Your task to perform on an android device: Turn off the flashlight Image 0: 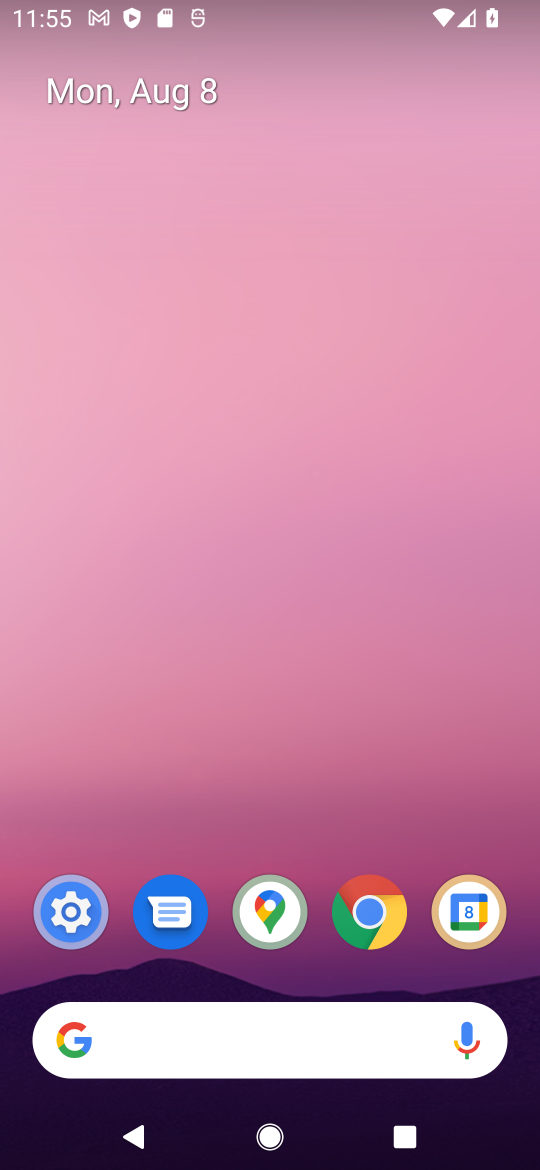
Step 0: click (54, 922)
Your task to perform on an android device: Turn off the flashlight Image 1: 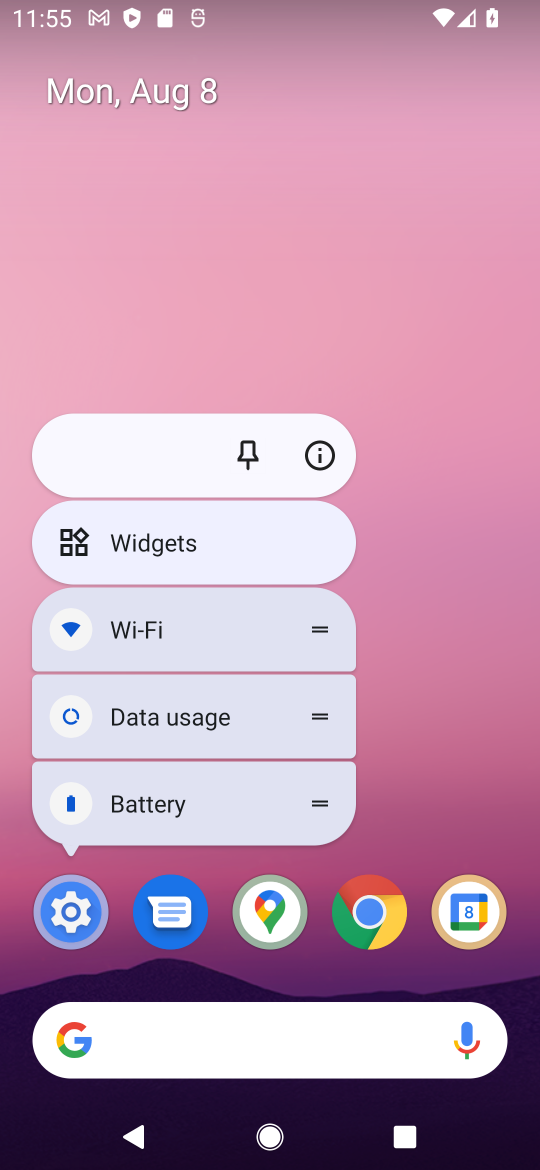
Step 1: click (63, 907)
Your task to perform on an android device: Turn off the flashlight Image 2: 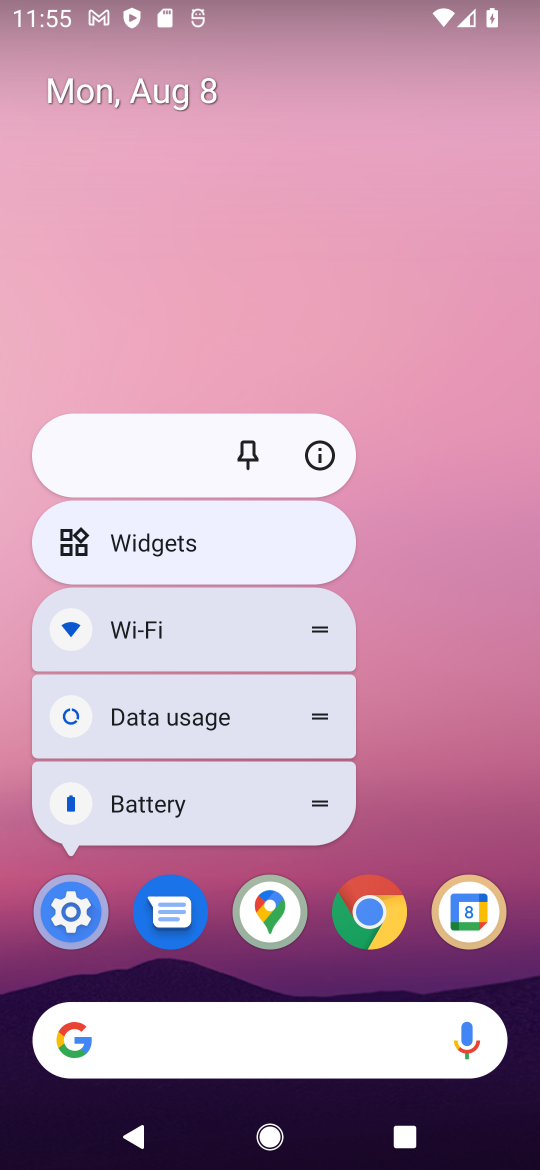
Step 2: click (79, 920)
Your task to perform on an android device: Turn off the flashlight Image 3: 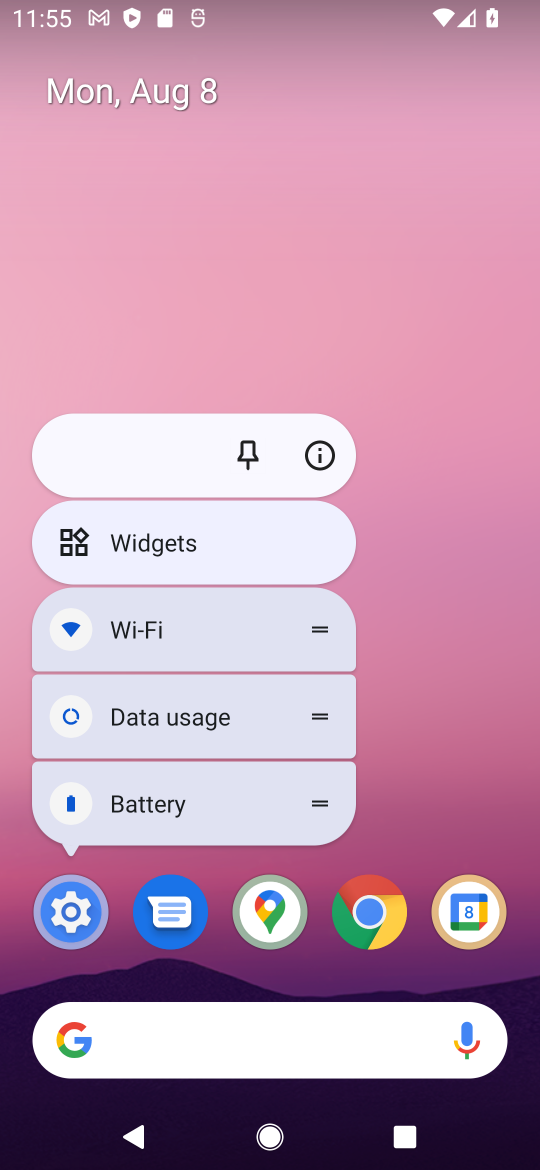
Step 3: click (71, 908)
Your task to perform on an android device: Turn off the flashlight Image 4: 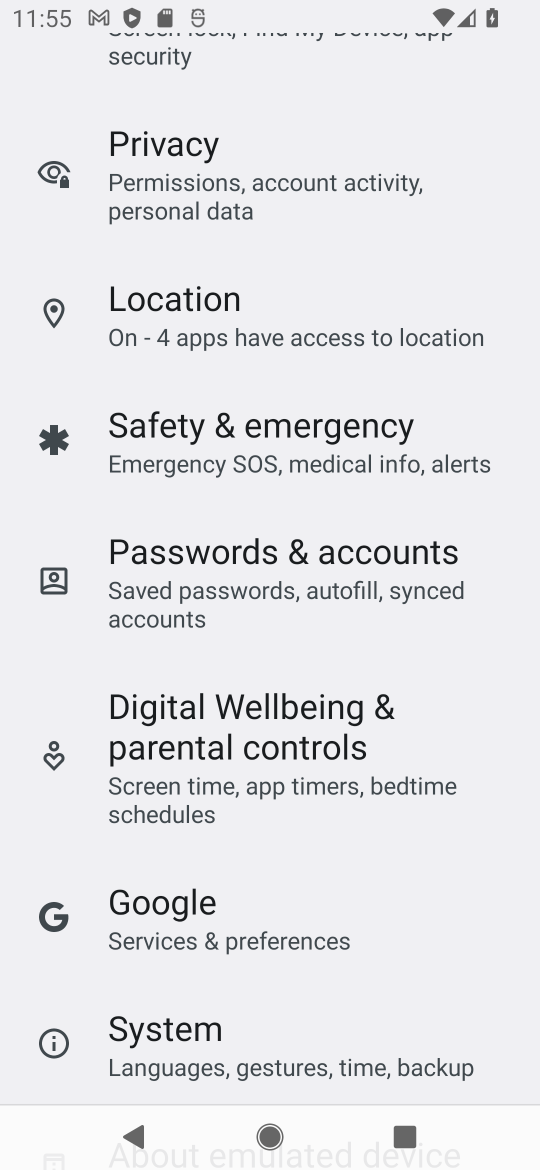
Step 4: drag from (268, 215) to (247, 953)
Your task to perform on an android device: Turn off the flashlight Image 5: 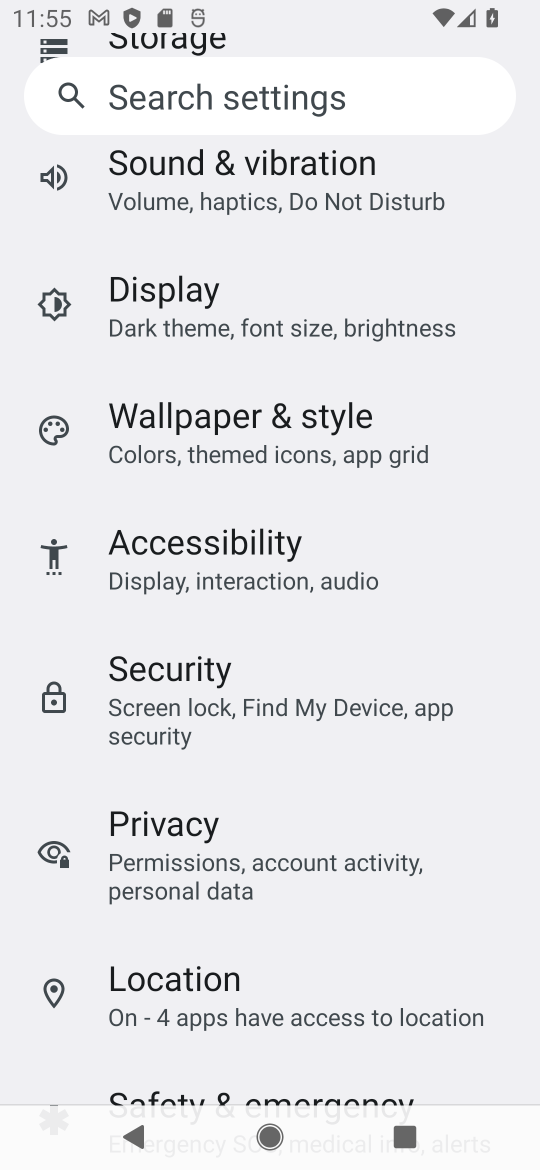
Step 5: click (207, 99)
Your task to perform on an android device: Turn off the flashlight Image 6: 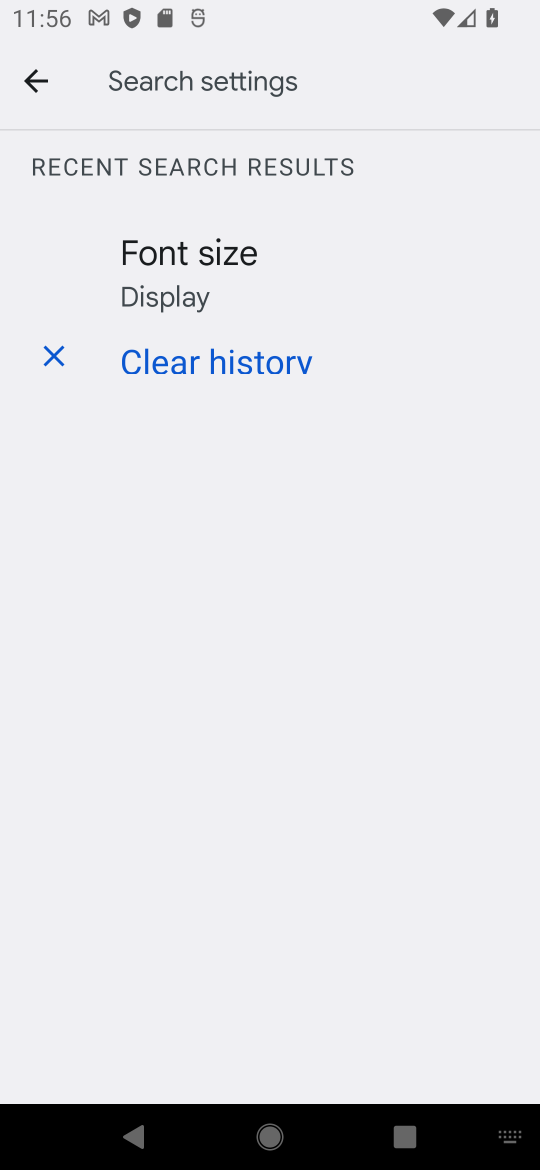
Step 6: click (215, 77)
Your task to perform on an android device: Turn off the flashlight Image 7: 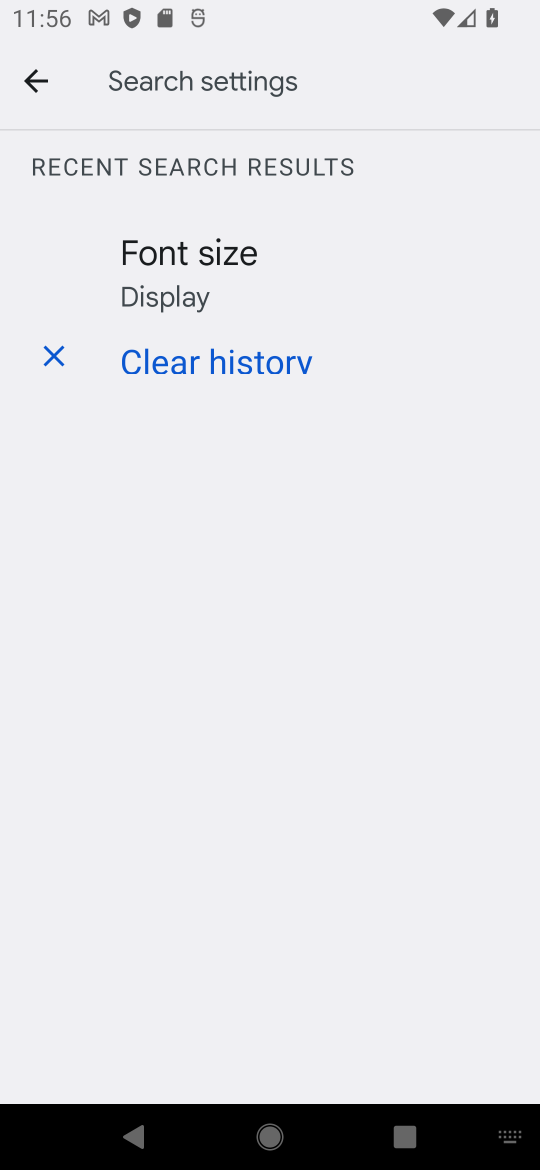
Step 7: type "flashlight"
Your task to perform on an android device: Turn off the flashlight Image 8: 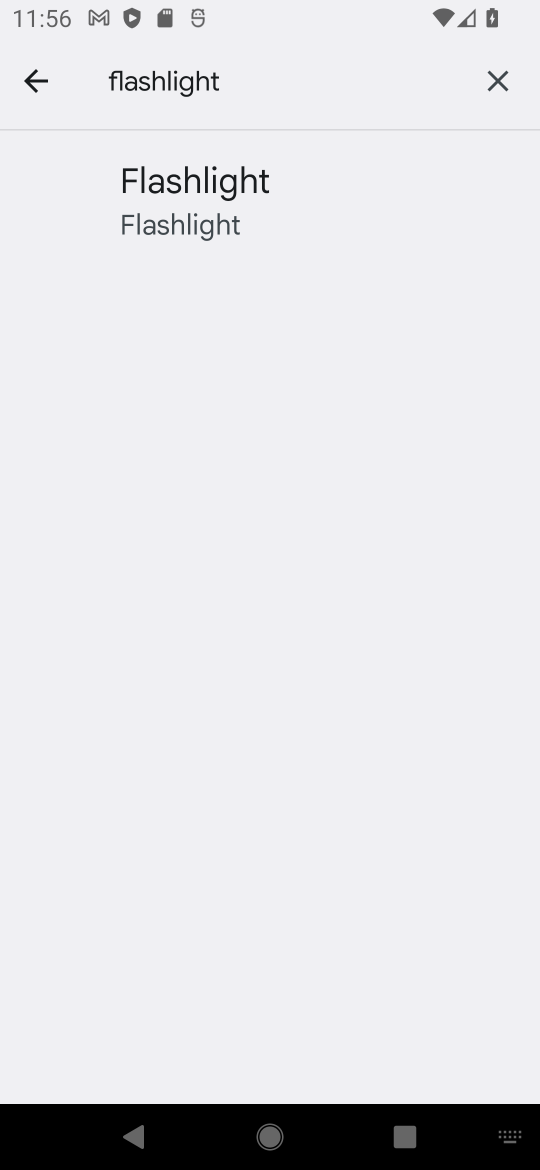
Step 8: click (199, 225)
Your task to perform on an android device: Turn off the flashlight Image 9: 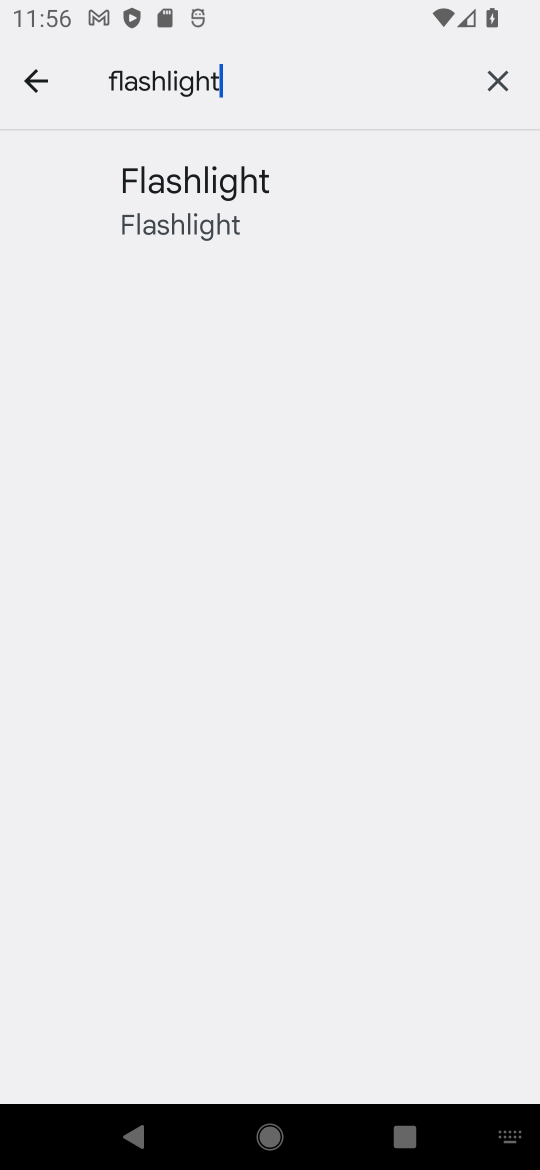
Step 9: click (181, 199)
Your task to perform on an android device: Turn off the flashlight Image 10: 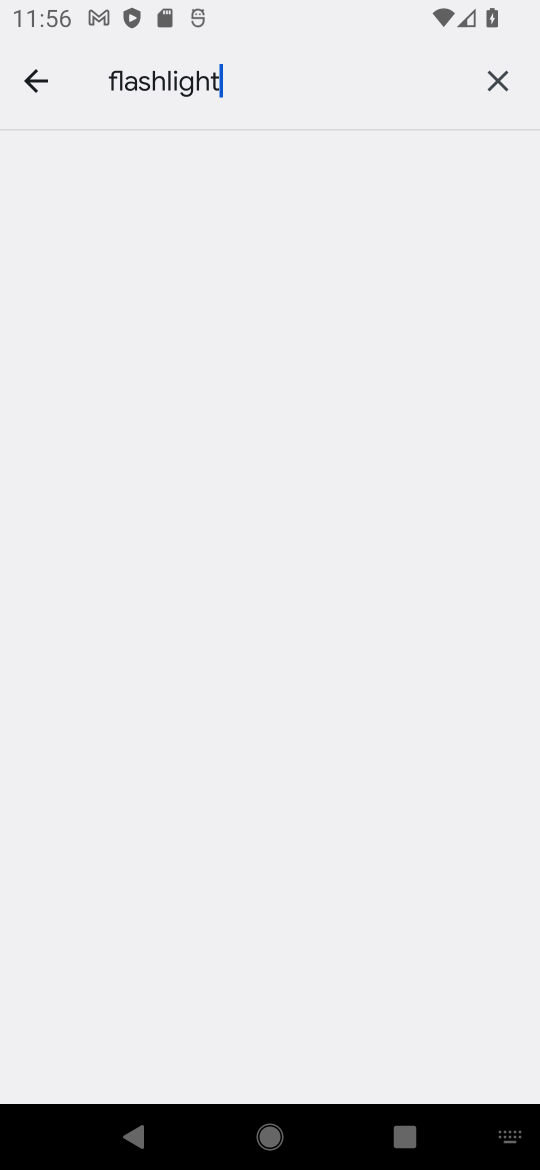
Step 10: task complete